Your task to perform on an android device: allow cookies in the chrome app Image 0: 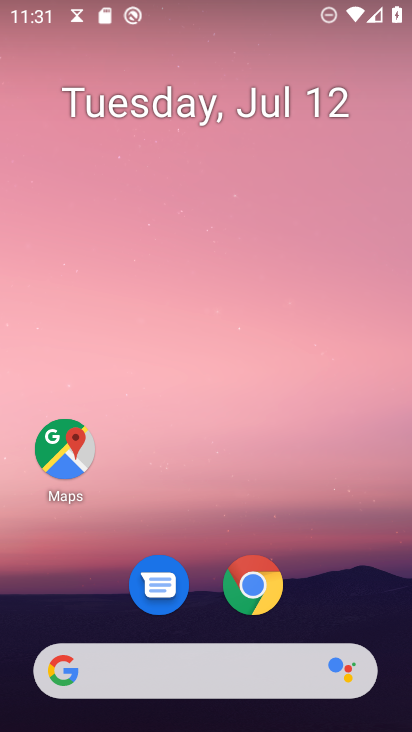
Step 0: press home button
Your task to perform on an android device: allow cookies in the chrome app Image 1: 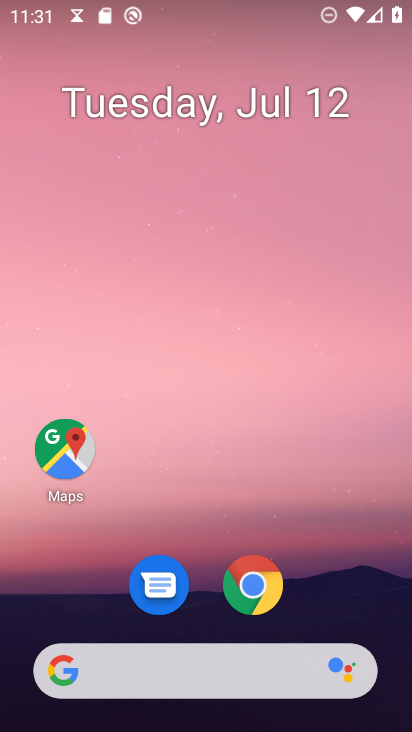
Step 1: click (259, 595)
Your task to perform on an android device: allow cookies in the chrome app Image 2: 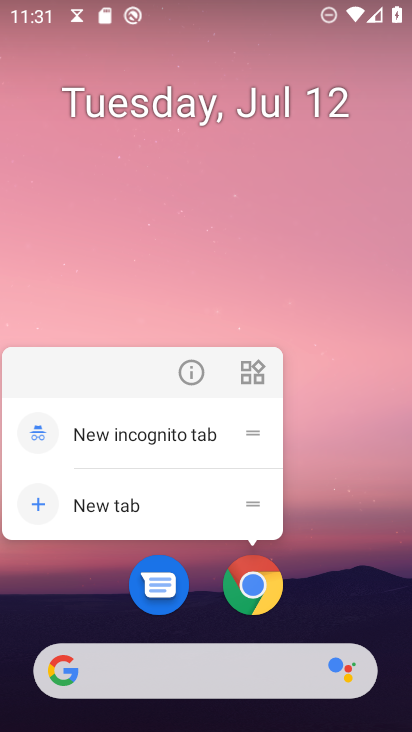
Step 2: click (259, 594)
Your task to perform on an android device: allow cookies in the chrome app Image 3: 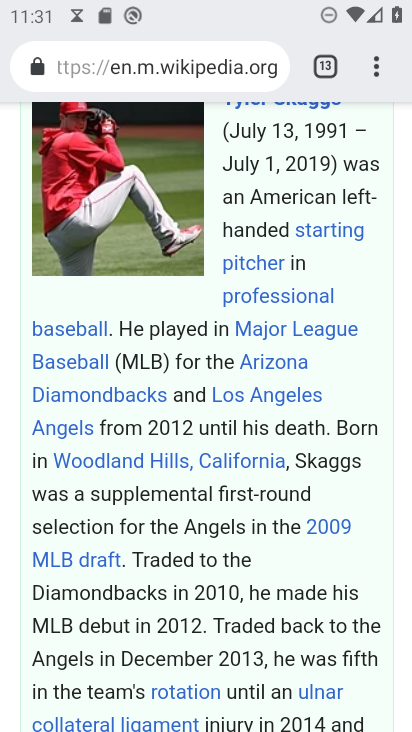
Step 3: drag from (376, 67) to (176, 583)
Your task to perform on an android device: allow cookies in the chrome app Image 4: 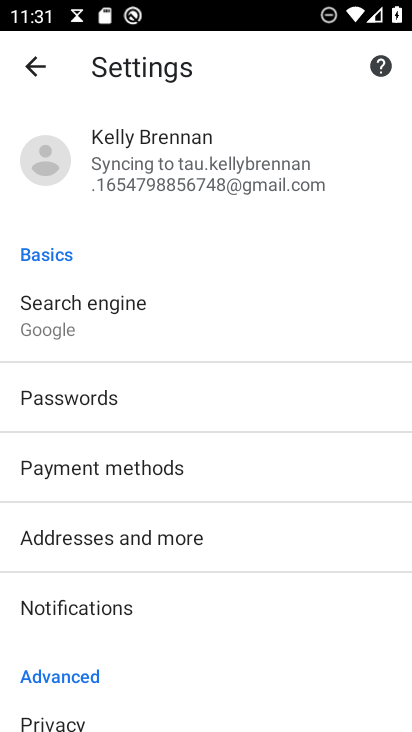
Step 4: drag from (160, 658) to (268, 267)
Your task to perform on an android device: allow cookies in the chrome app Image 5: 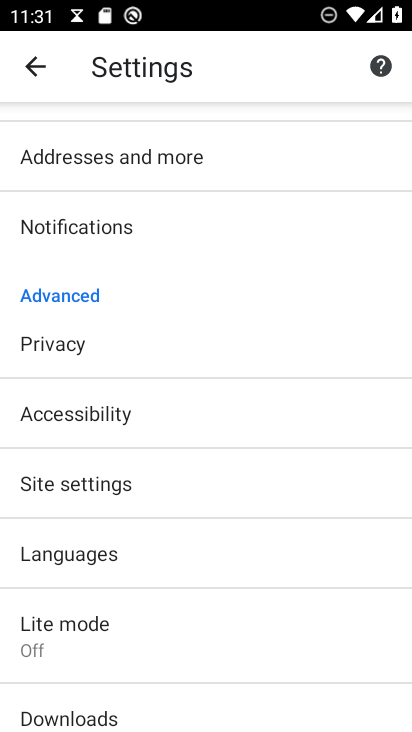
Step 5: click (103, 477)
Your task to perform on an android device: allow cookies in the chrome app Image 6: 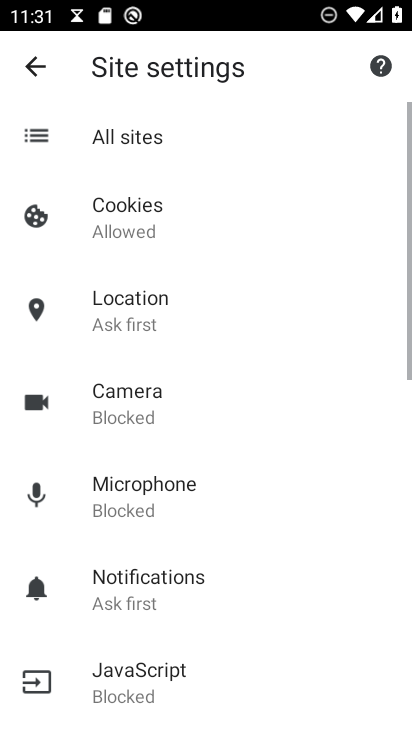
Step 6: click (116, 211)
Your task to perform on an android device: allow cookies in the chrome app Image 7: 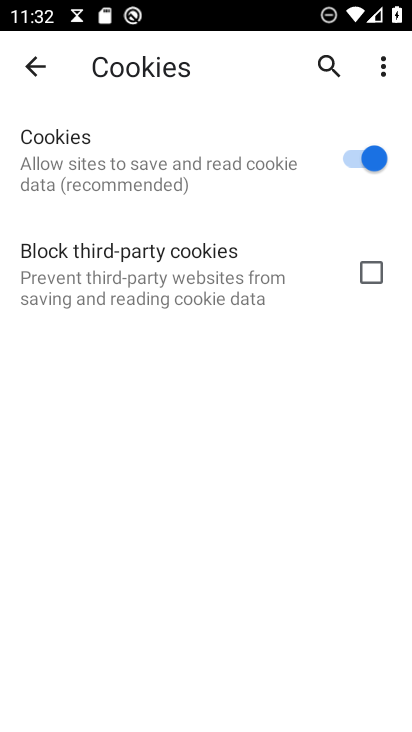
Step 7: task complete